Your task to perform on an android device: Open Android settings Image 0: 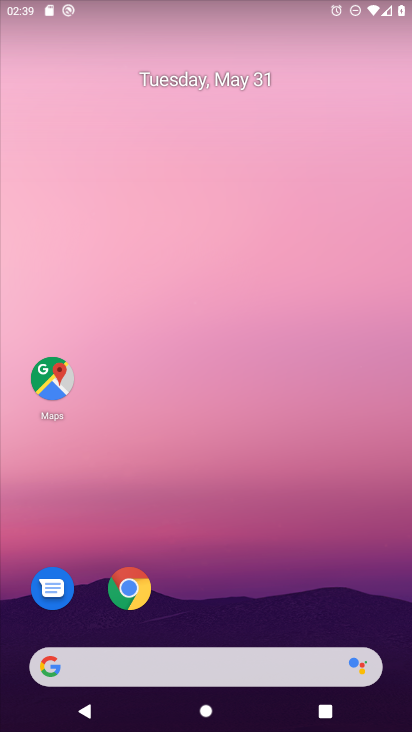
Step 0: drag from (296, 581) to (206, 21)
Your task to perform on an android device: Open Android settings Image 1: 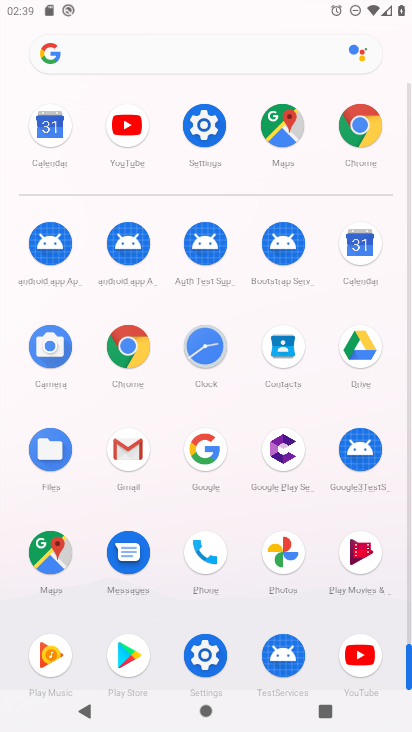
Step 1: click (200, 105)
Your task to perform on an android device: Open Android settings Image 2: 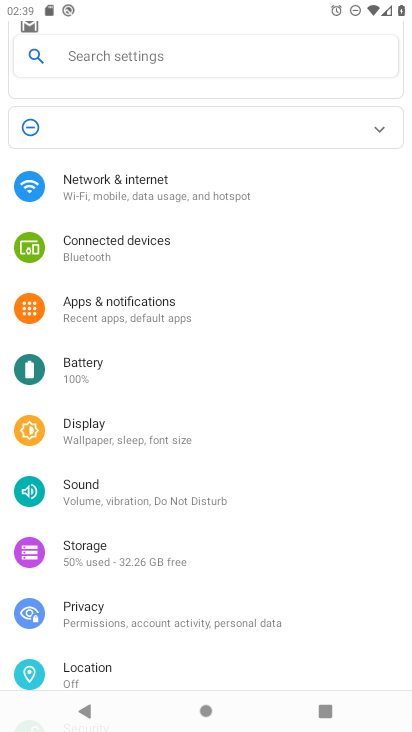
Step 2: drag from (147, 659) to (280, 10)
Your task to perform on an android device: Open Android settings Image 3: 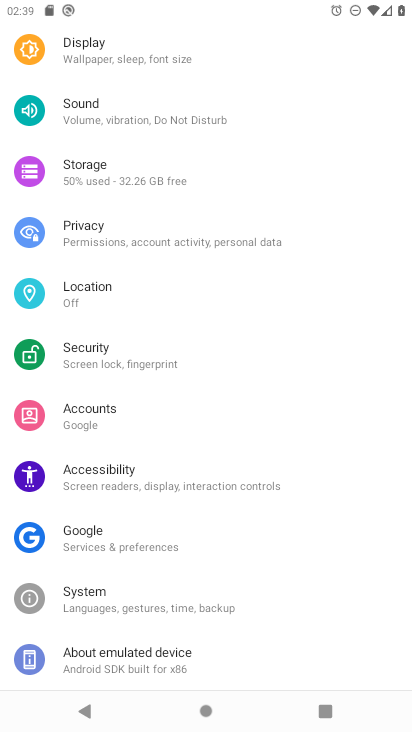
Step 3: click (155, 663)
Your task to perform on an android device: Open Android settings Image 4: 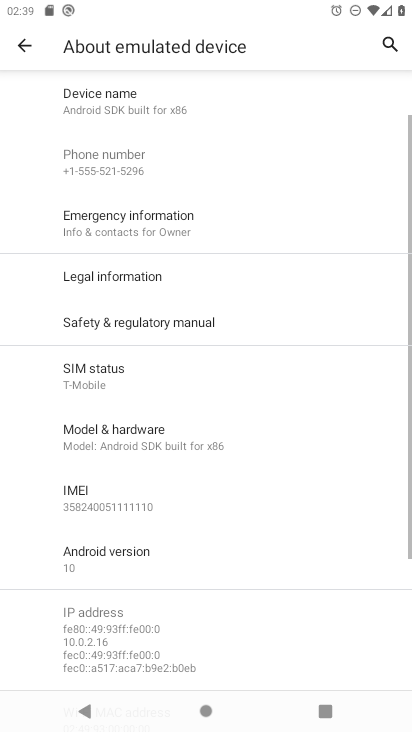
Step 4: click (191, 566)
Your task to perform on an android device: Open Android settings Image 5: 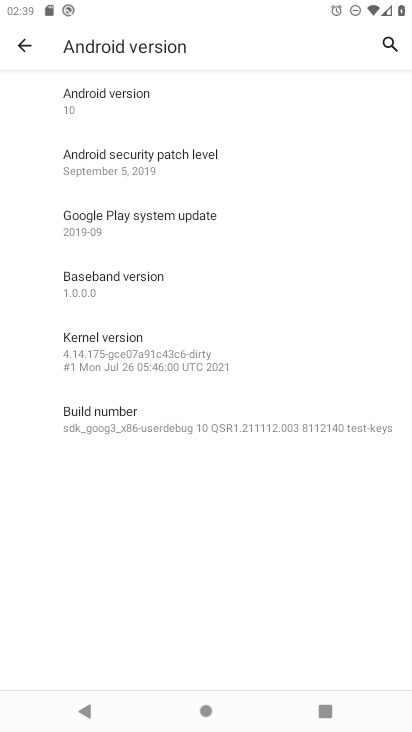
Step 5: task complete